Your task to perform on an android device: turn off picture-in-picture Image 0: 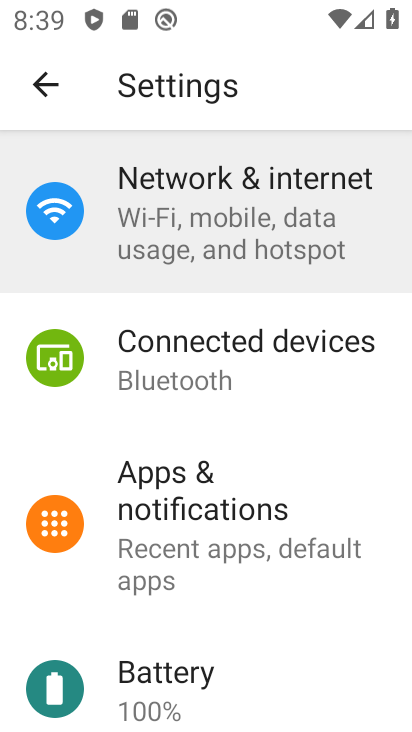
Step 0: press home button
Your task to perform on an android device: turn off picture-in-picture Image 1: 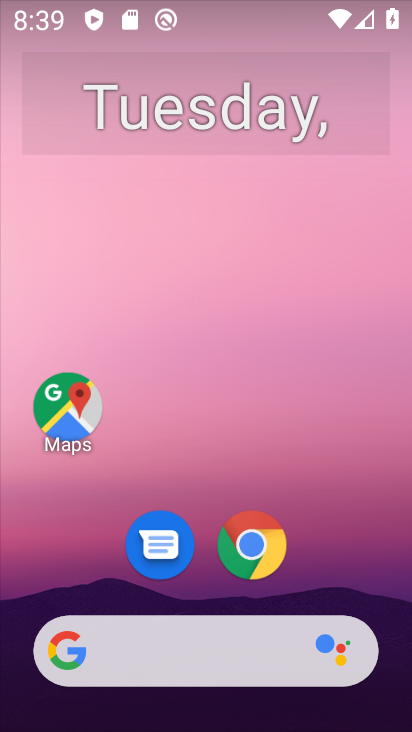
Step 1: click (264, 557)
Your task to perform on an android device: turn off picture-in-picture Image 2: 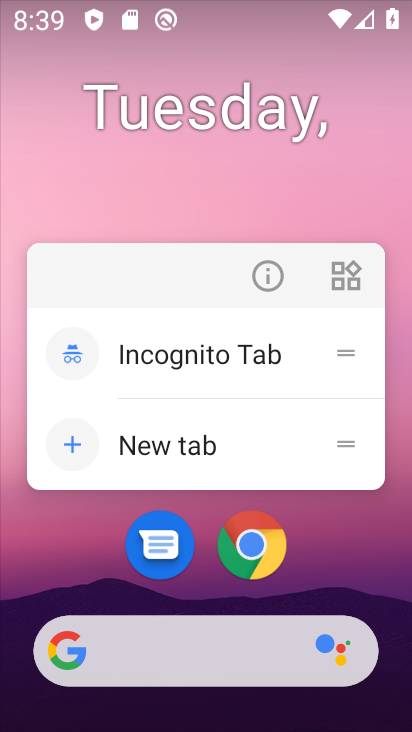
Step 2: click (271, 264)
Your task to perform on an android device: turn off picture-in-picture Image 3: 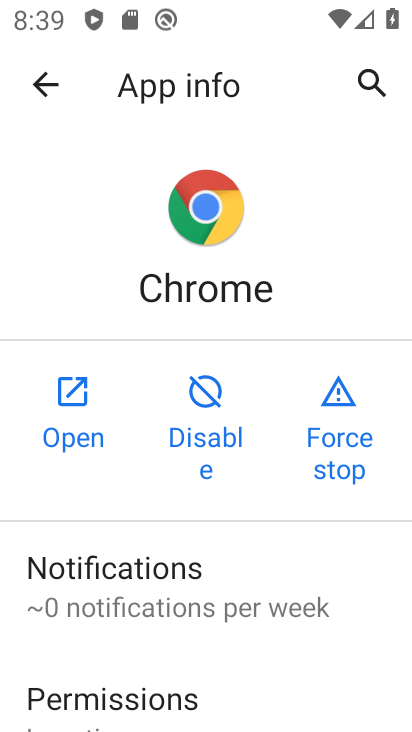
Step 3: drag from (330, 646) to (334, 87)
Your task to perform on an android device: turn off picture-in-picture Image 4: 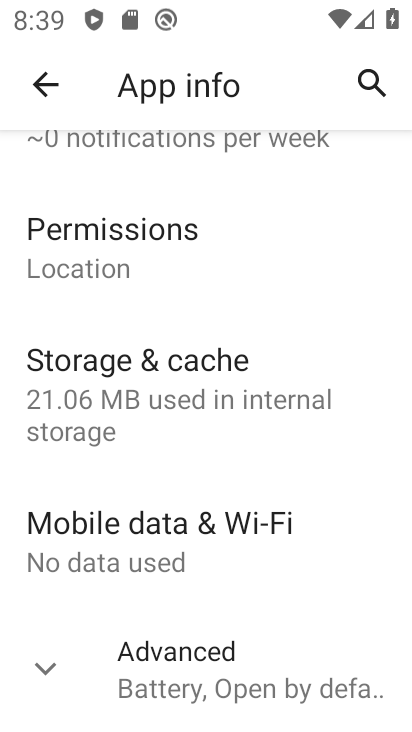
Step 4: drag from (318, 556) to (323, 232)
Your task to perform on an android device: turn off picture-in-picture Image 5: 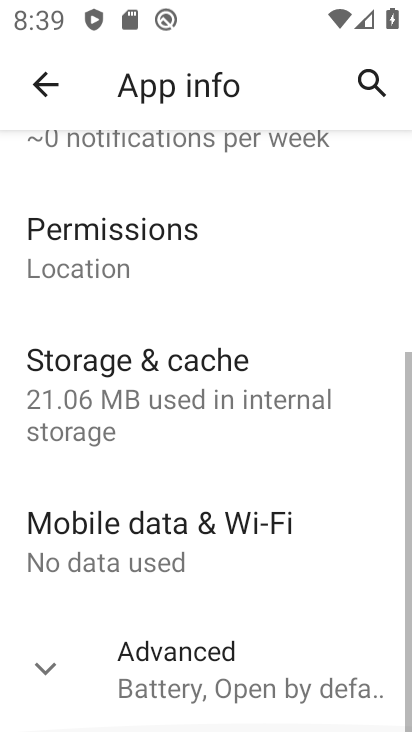
Step 5: click (308, 659)
Your task to perform on an android device: turn off picture-in-picture Image 6: 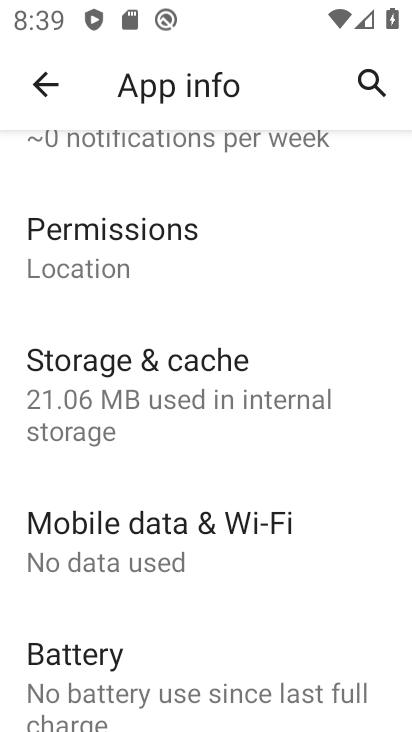
Step 6: drag from (318, 629) to (358, 110)
Your task to perform on an android device: turn off picture-in-picture Image 7: 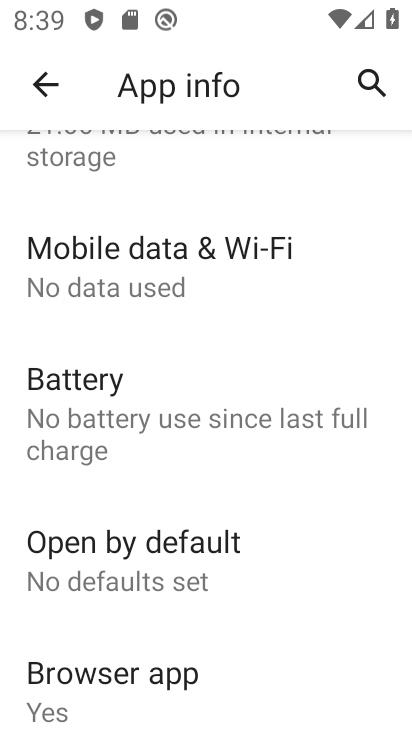
Step 7: drag from (313, 187) to (320, 82)
Your task to perform on an android device: turn off picture-in-picture Image 8: 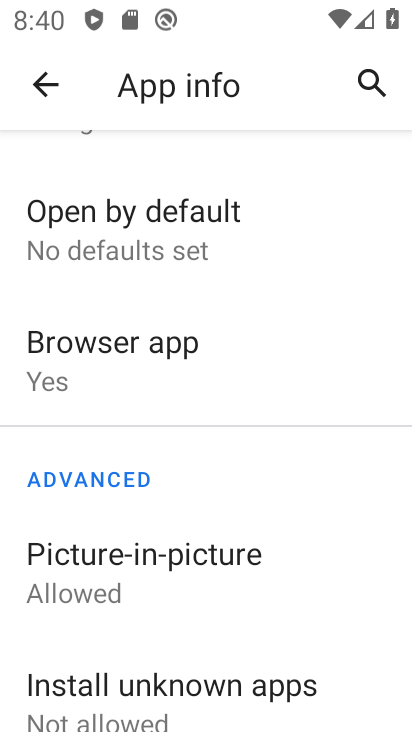
Step 8: click (252, 551)
Your task to perform on an android device: turn off picture-in-picture Image 9: 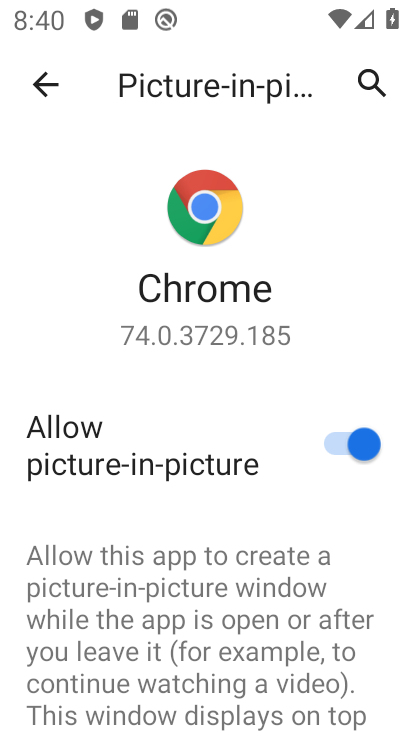
Step 9: click (355, 446)
Your task to perform on an android device: turn off picture-in-picture Image 10: 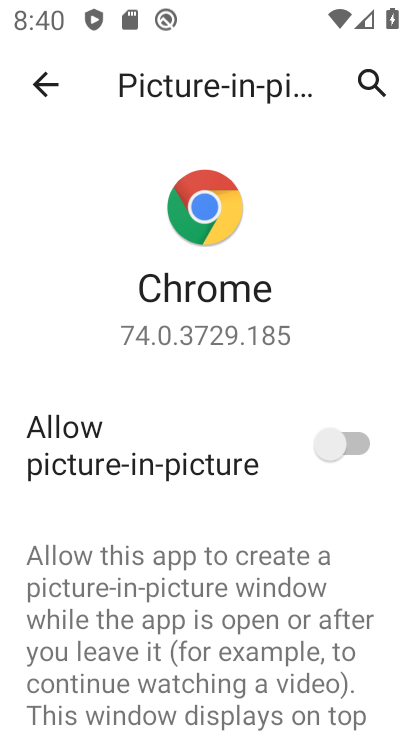
Step 10: task complete